Your task to perform on an android device: Open display settings Image 0: 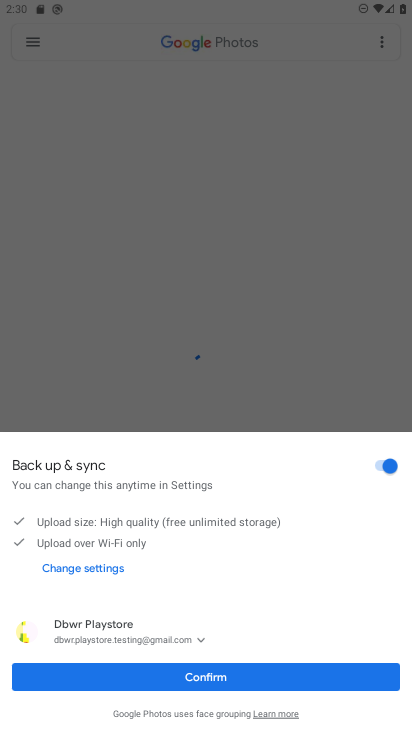
Step 0: drag from (306, 675) to (380, 683)
Your task to perform on an android device: Open display settings Image 1: 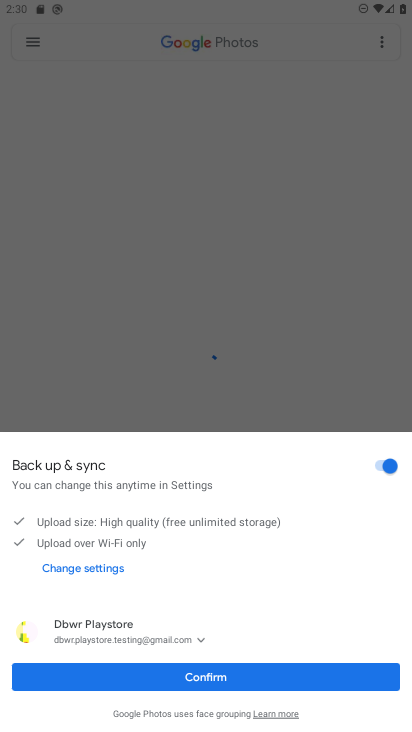
Step 1: press home button
Your task to perform on an android device: Open display settings Image 2: 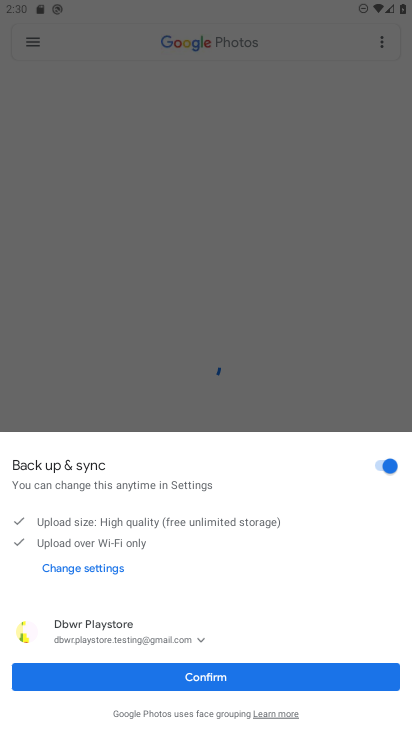
Step 2: click (387, 473)
Your task to perform on an android device: Open display settings Image 3: 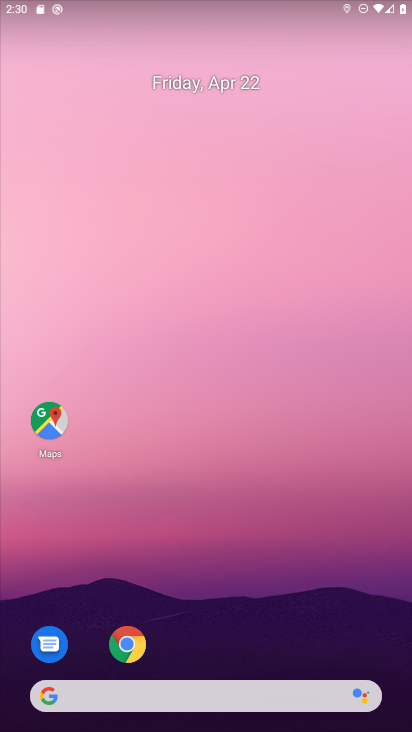
Step 3: drag from (302, 595) to (286, 79)
Your task to perform on an android device: Open display settings Image 4: 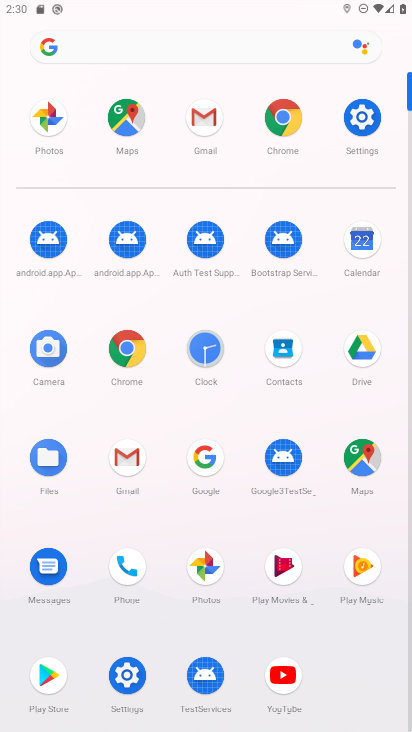
Step 4: click (363, 124)
Your task to perform on an android device: Open display settings Image 5: 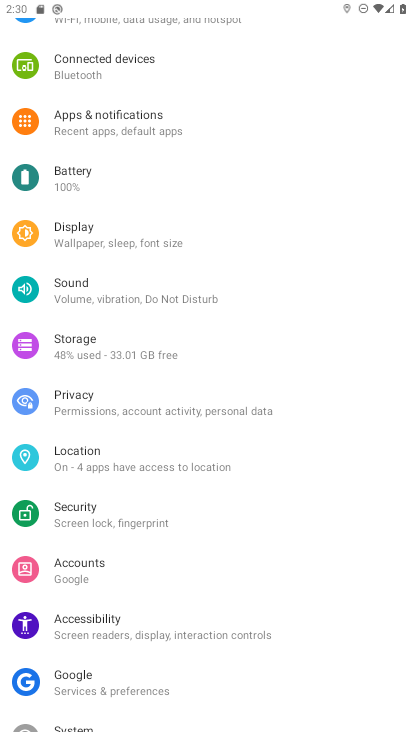
Step 5: drag from (159, 84) to (175, 515)
Your task to perform on an android device: Open display settings Image 6: 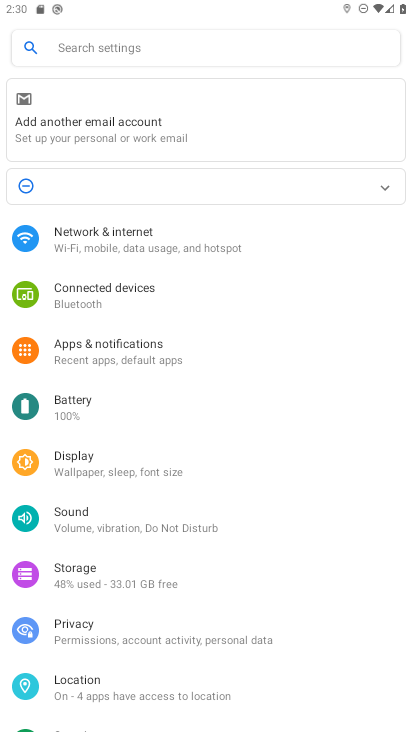
Step 6: drag from (230, 488) to (278, 313)
Your task to perform on an android device: Open display settings Image 7: 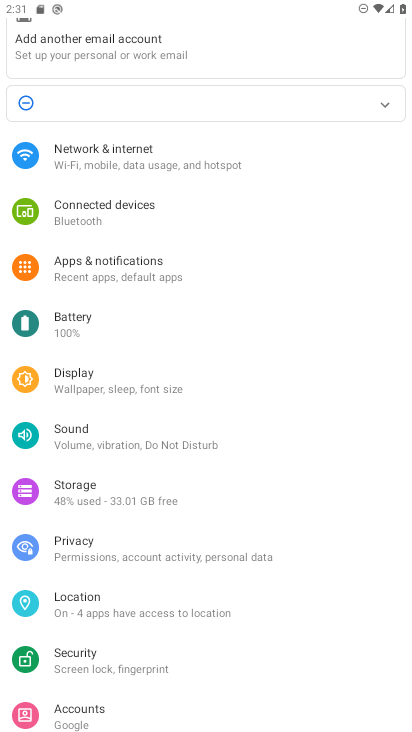
Step 7: click (105, 386)
Your task to perform on an android device: Open display settings Image 8: 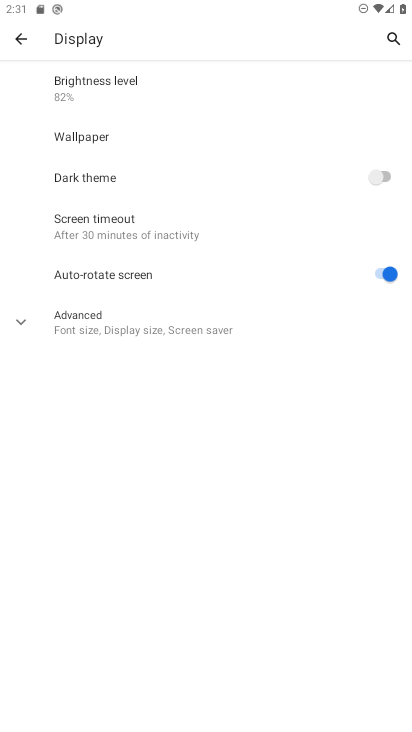
Step 8: task complete